Your task to perform on an android device: make emails show in primary in the gmail app Image 0: 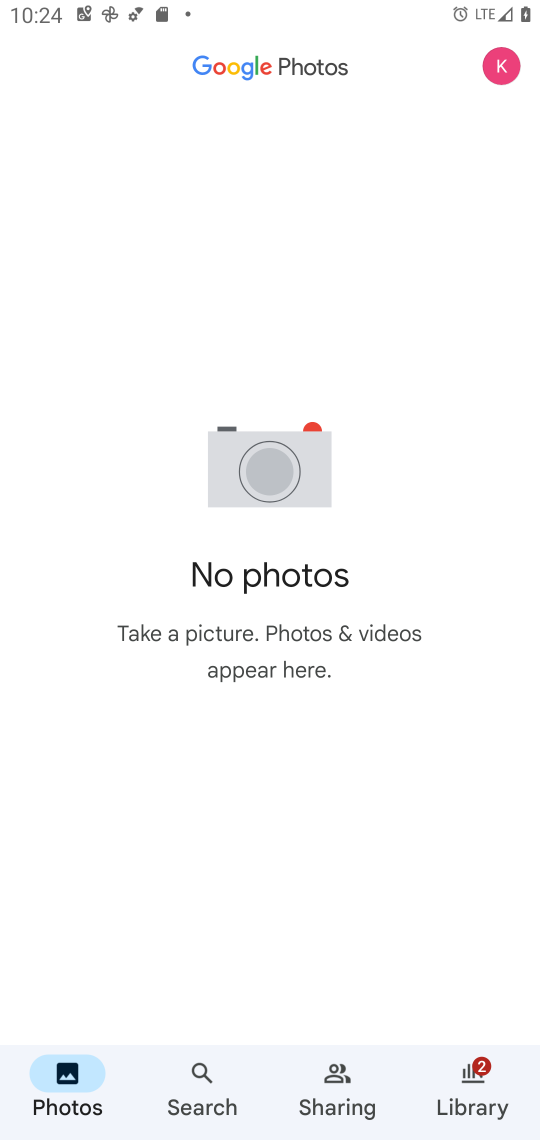
Step 0: press home button
Your task to perform on an android device: make emails show in primary in the gmail app Image 1: 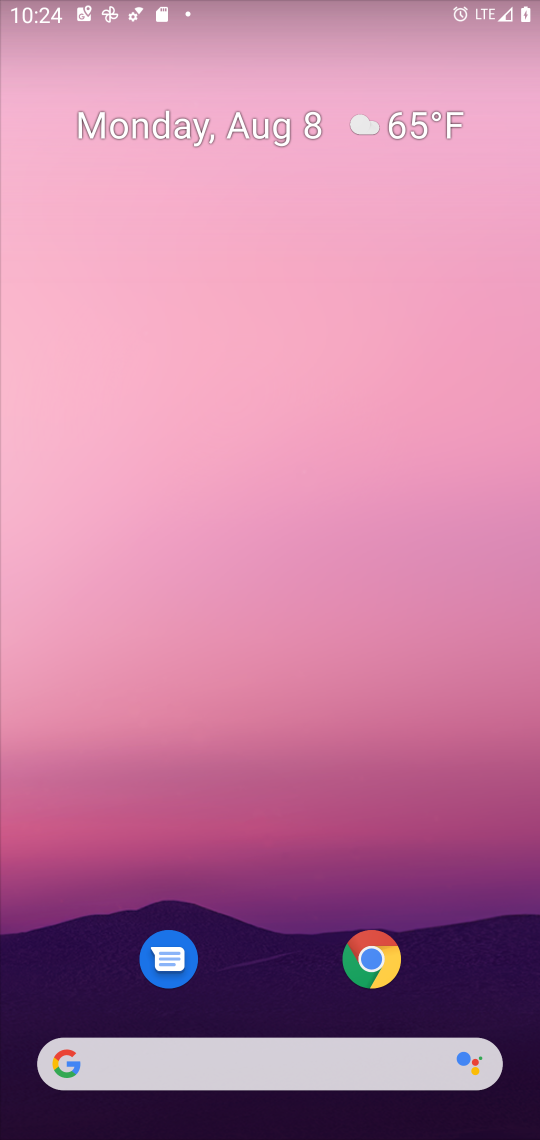
Step 1: drag from (473, 892) to (183, 63)
Your task to perform on an android device: make emails show in primary in the gmail app Image 2: 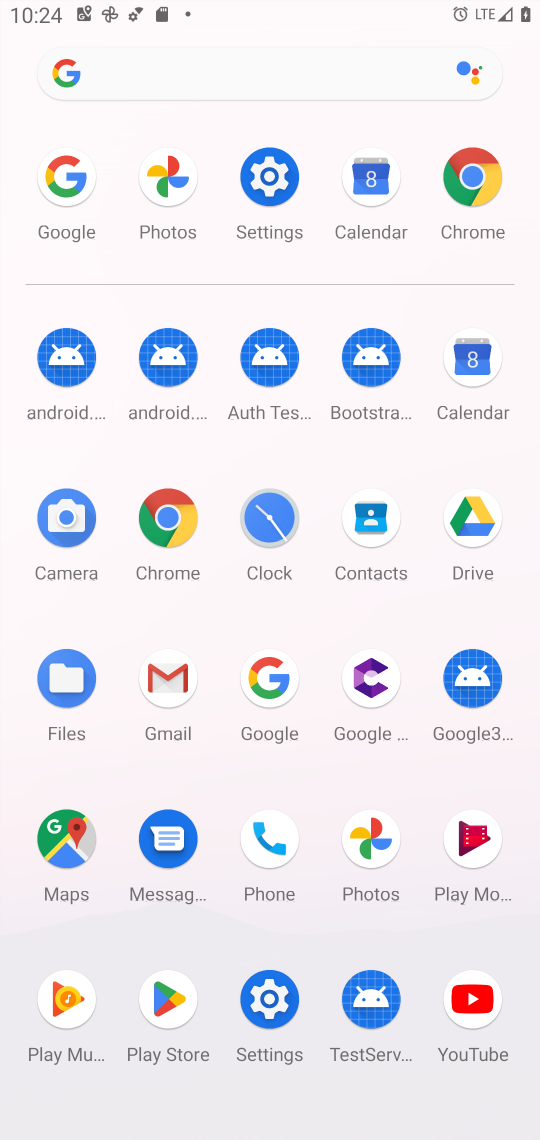
Step 2: click (177, 696)
Your task to perform on an android device: make emails show in primary in the gmail app Image 3: 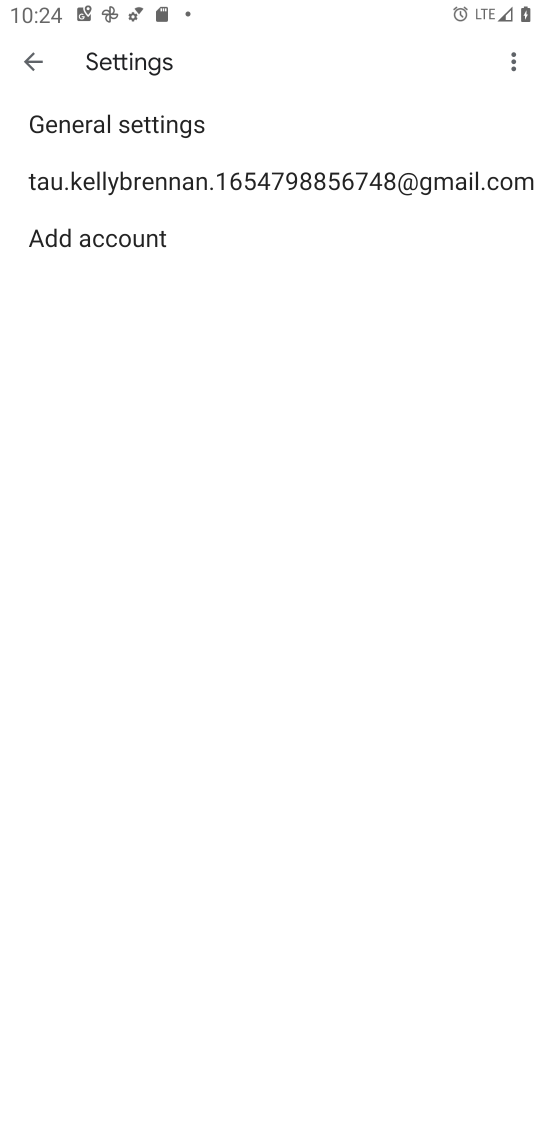
Step 3: task complete